Your task to perform on an android device: set the stopwatch Image 0: 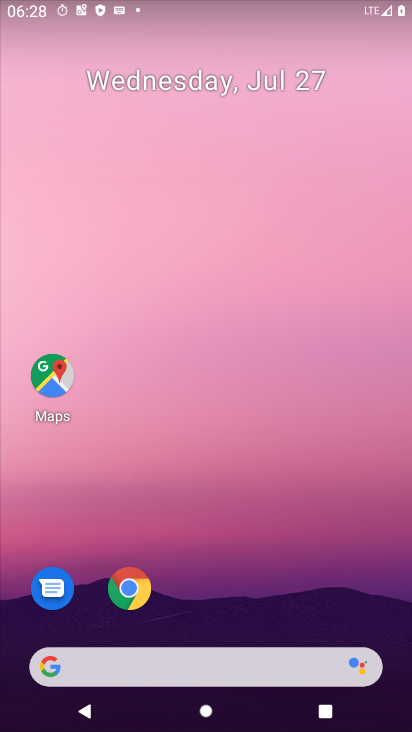
Step 0: drag from (206, 624) to (304, 1)
Your task to perform on an android device: set the stopwatch Image 1: 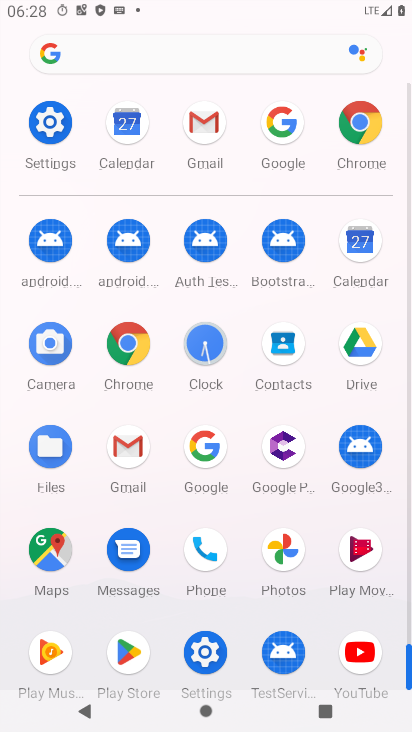
Step 1: click (203, 336)
Your task to perform on an android device: set the stopwatch Image 2: 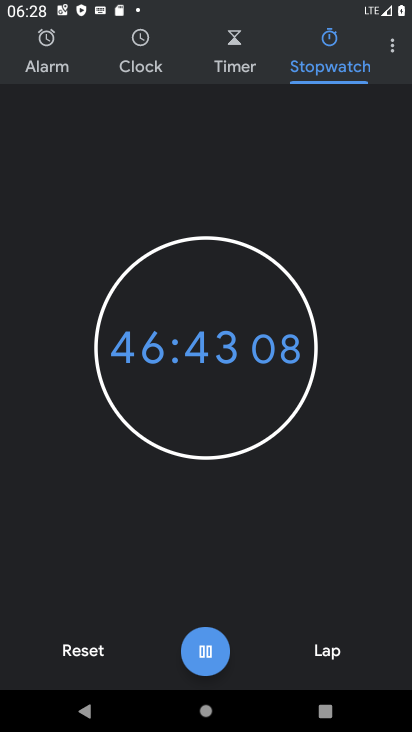
Step 2: task complete